Your task to perform on an android device: turn vacation reply on in the gmail app Image 0: 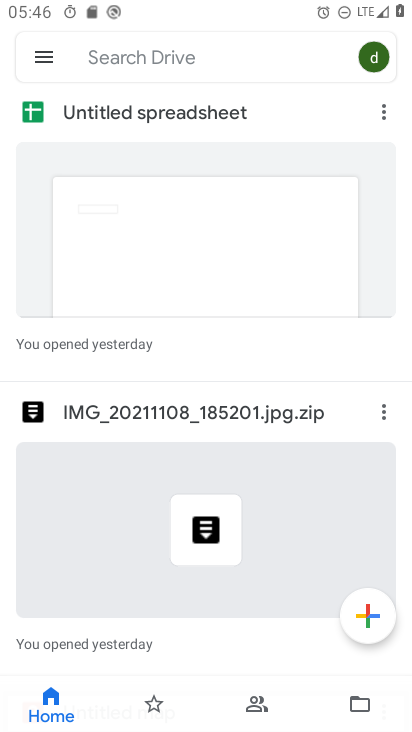
Step 0: press home button
Your task to perform on an android device: turn vacation reply on in the gmail app Image 1: 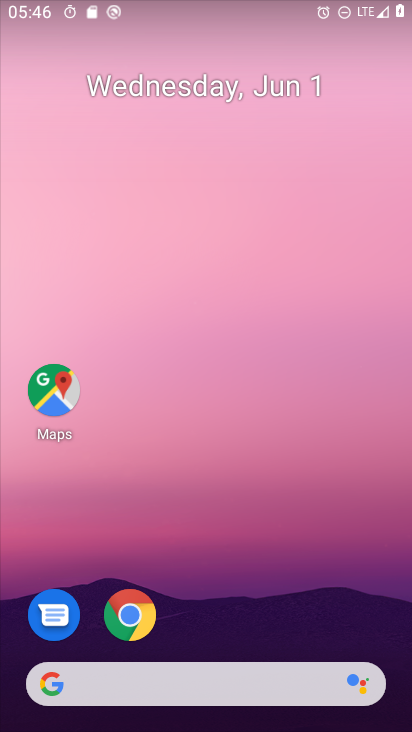
Step 1: drag from (208, 675) to (282, 30)
Your task to perform on an android device: turn vacation reply on in the gmail app Image 2: 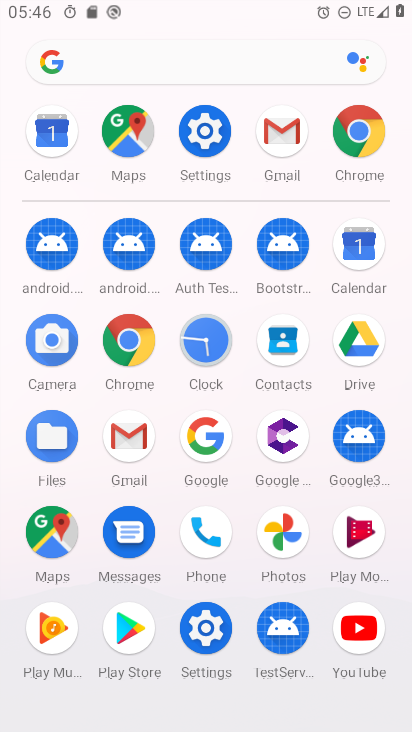
Step 2: click (113, 444)
Your task to perform on an android device: turn vacation reply on in the gmail app Image 3: 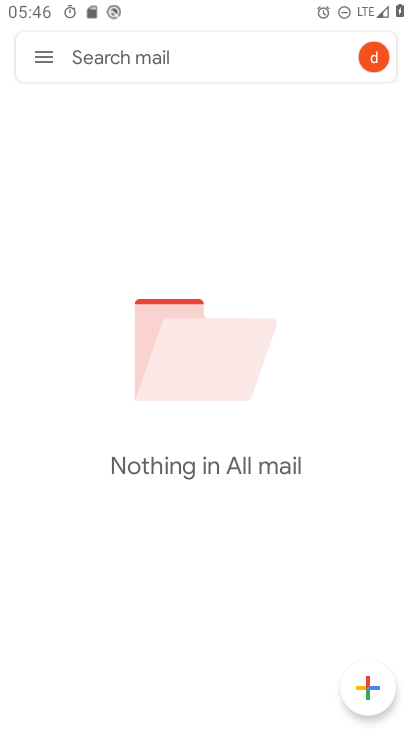
Step 3: click (52, 46)
Your task to perform on an android device: turn vacation reply on in the gmail app Image 4: 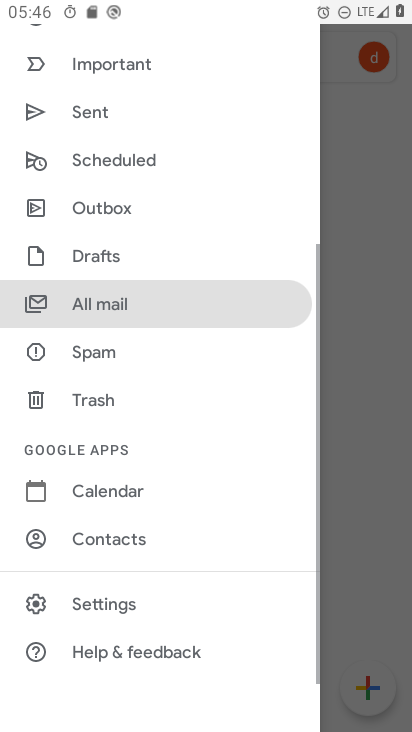
Step 4: click (158, 608)
Your task to perform on an android device: turn vacation reply on in the gmail app Image 5: 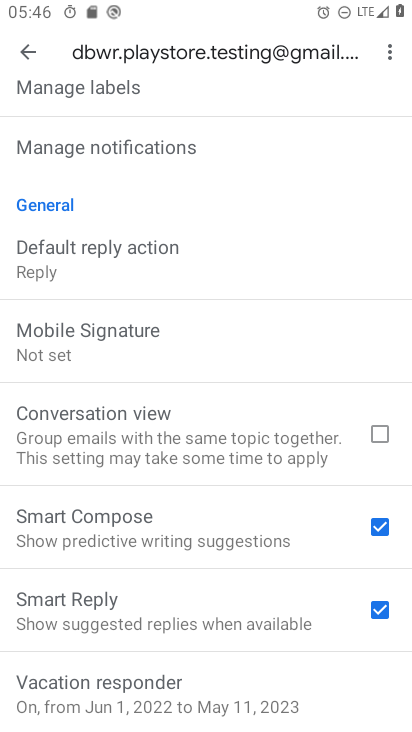
Step 5: drag from (165, 633) to (186, 280)
Your task to perform on an android device: turn vacation reply on in the gmail app Image 6: 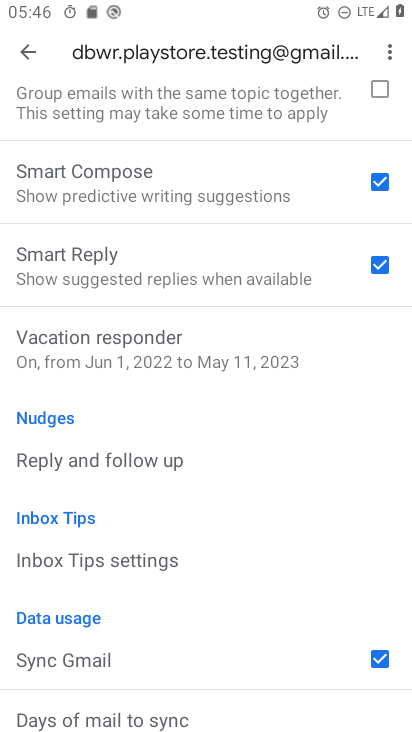
Step 6: click (215, 352)
Your task to perform on an android device: turn vacation reply on in the gmail app Image 7: 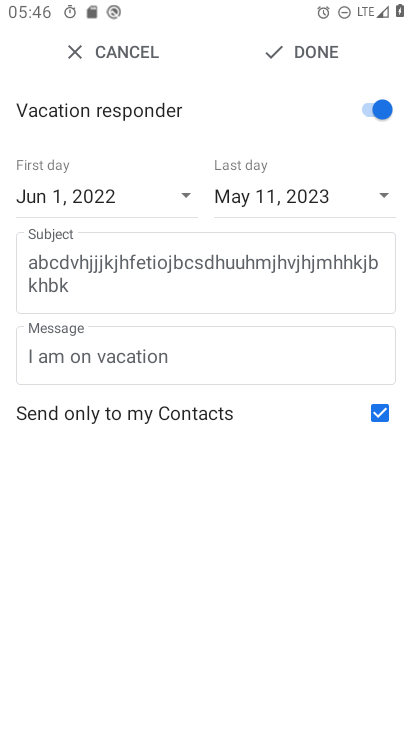
Step 7: task complete